Your task to perform on an android device: Do I have any events today? Image 0: 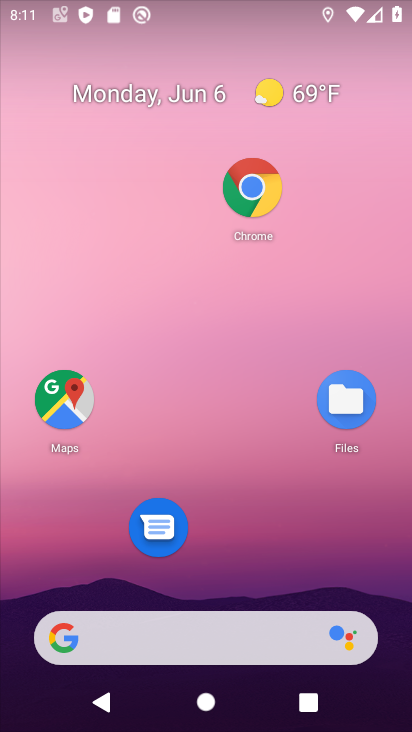
Step 0: drag from (253, 406) to (204, 58)
Your task to perform on an android device: Do I have any events today? Image 1: 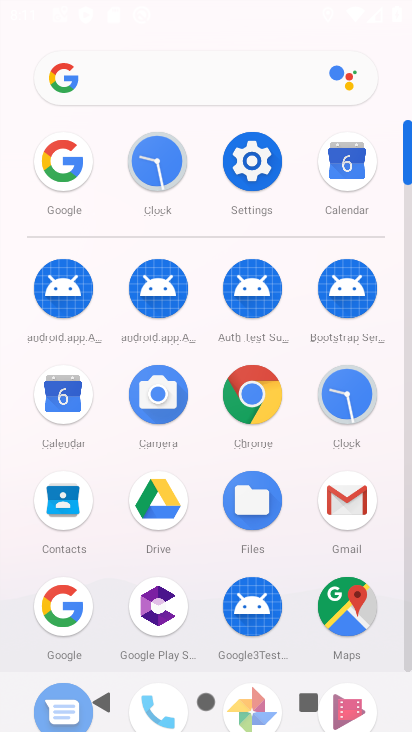
Step 1: click (59, 395)
Your task to perform on an android device: Do I have any events today? Image 2: 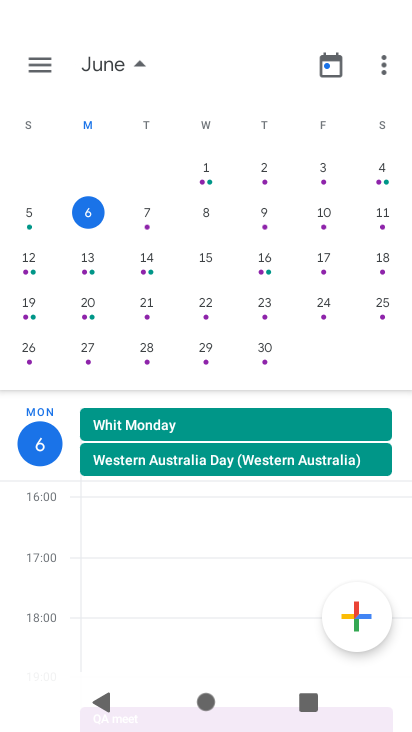
Step 2: click (84, 218)
Your task to perform on an android device: Do I have any events today? Image 3: 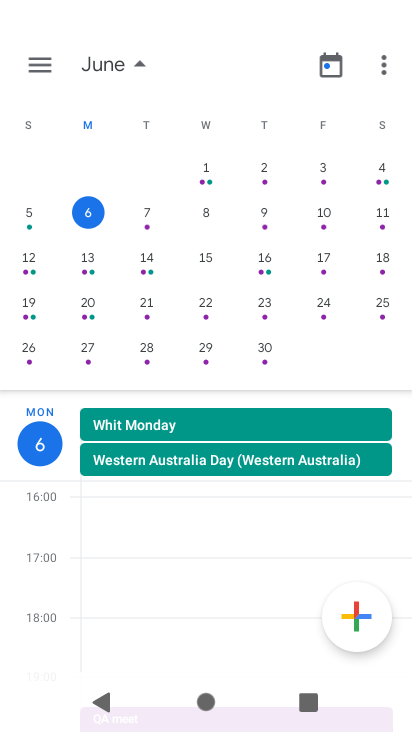
Step 3: task complete